Your task to perform on an android device: toggle pop-ups in chrome Image 0: 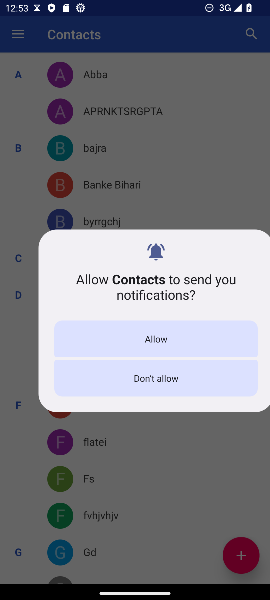
Step 0: press back button
Your task to perform on an android device: toggle pop-ups in chrome Image 1: 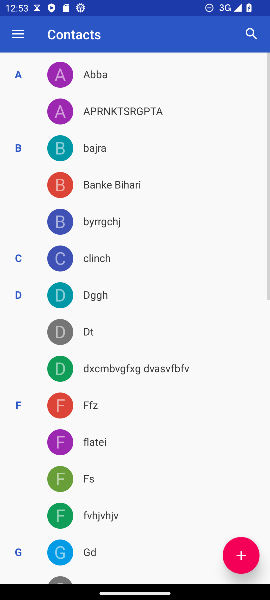
Step 1: press home button
Your task to perform on an android device: toggle pop-ups in chrome Image 2: 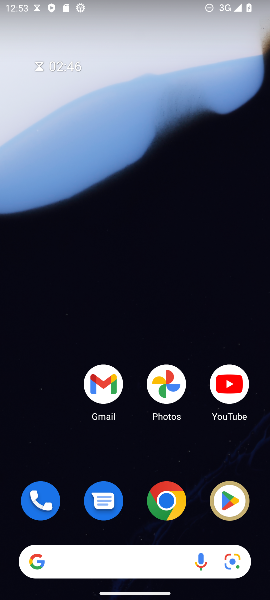
Step 2: click (161, 504)
Your task to perform on an android device: toggle pop-ups in chrome Image 3: 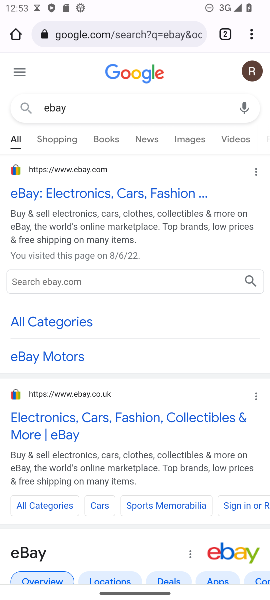
Step 3: drag from (130, 420) to (122, 212)
Your task to perform on an android device: toggle pop-ups in chrome Image 4: 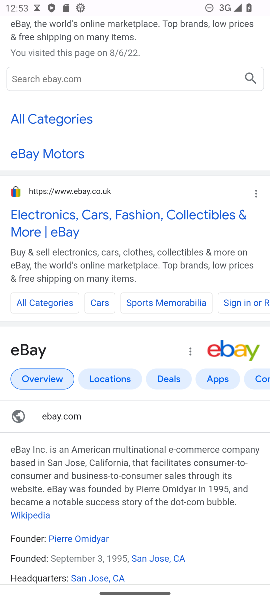
Step 4: drag from (155, 197) to (205, 524)
Your task to perform on an android device: toggle pop-ups in chrome Image 5: 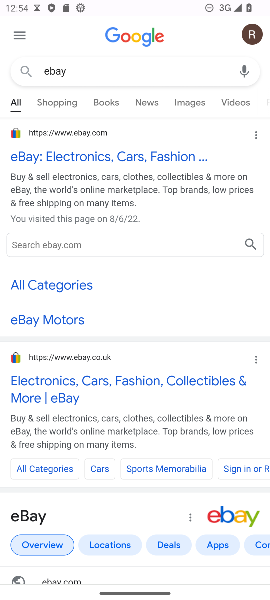
Step 5: drag from (193, 163) to (188, 588)
Your task to perform on an android device: toggle pop-ups in chrome Image 6: 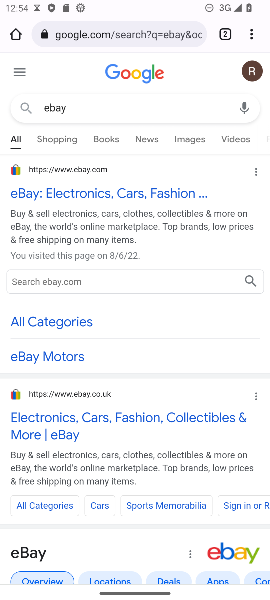
Step 6: drag from (166, 180) to (177, 594)
Your task to perform on an android device: toggle pop-ups in chrome Image 7: 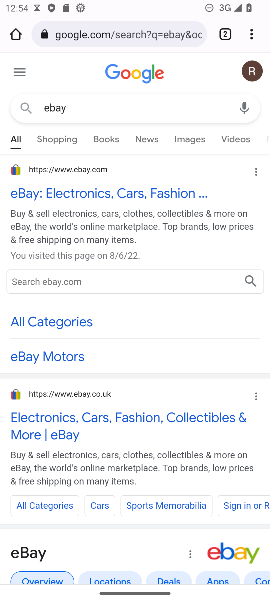
Step 7: click (252, 38)
Your task to perform on an android device: toggle pop-ups in chrome Image 8: 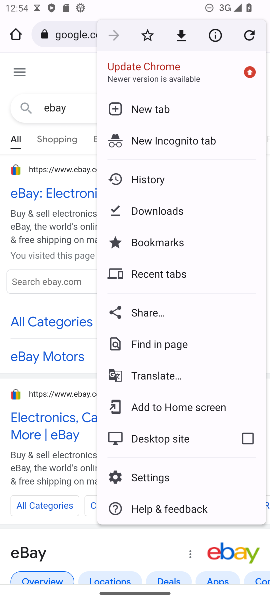
Step 8: click (154, 471)
Your task to perform on an android device: toggle pop-ups in chrome Image 9: 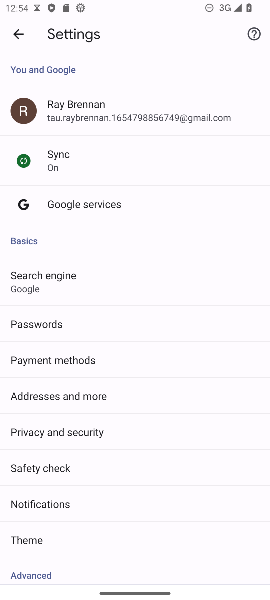
Step 9: drag from (81, 504) to (77, 162)
Your task to perform on an android device: toggle pop-ups in chrome Image 10: 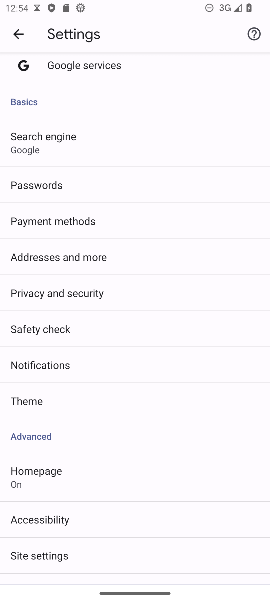
Step 10: click (50, 557)
Your task to perform on an android device: toggle pop-ups in chrome Image 11: 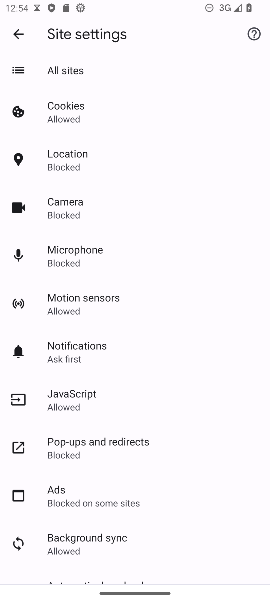
Step 11: click (81, 450)
Your task to perform on an android device: toggle pop-ups in chrome Image 12: 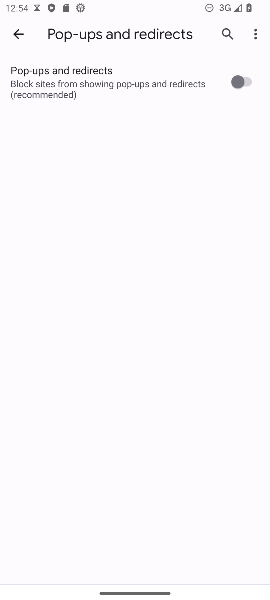
Step 12: click (248, 77)
Your task to perform on an android device: toggle pop-ups in chrome Image 13: 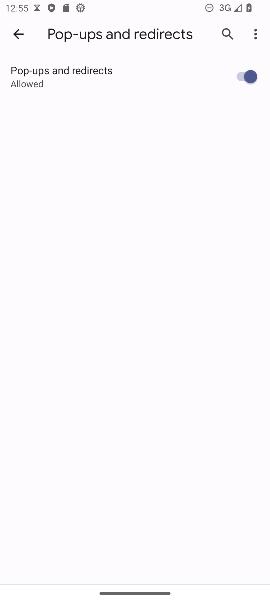
Step 13: task complete